Your task to perform on an android device: Open Yahoo.com Image 0: 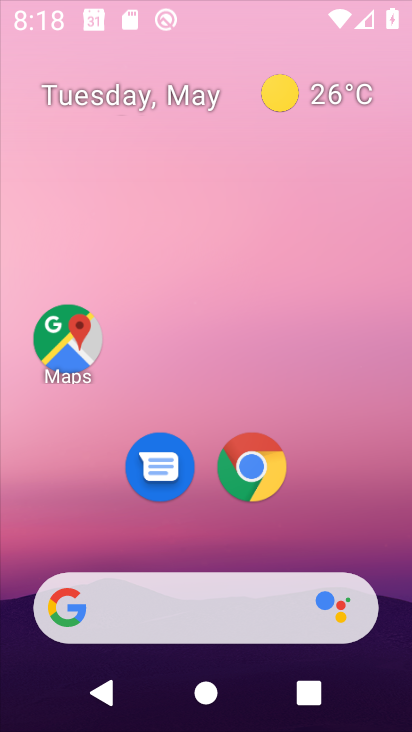
Step 0: press home button
Your task to perform on an android device: Open Yahoo.com Image 1: 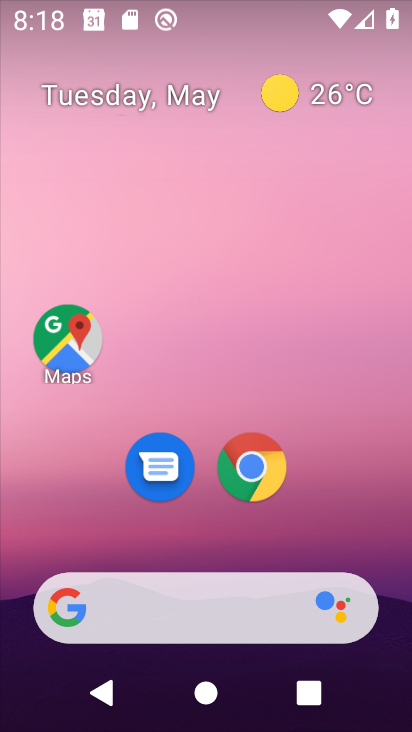
Step 1: click (252, 462)
Your task to perform on an android device: Open Yahoo.com Image 2: 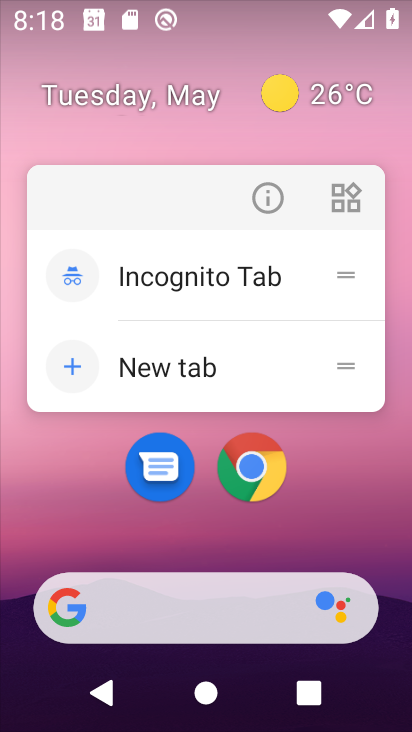
Step 2: click (253, 467)
Your task to perform on an android device: Open Yahoo.com Image 3: 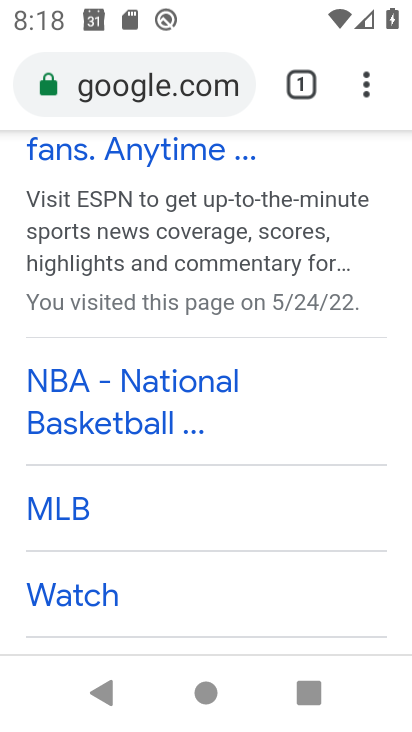
Step 3: click (238, 85)
Your task to perform on an android device: Open Yahoo.com Image 4: 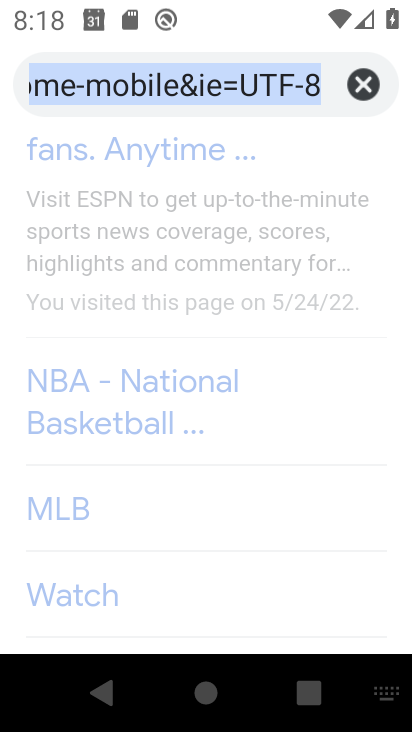
Step 4: click (376, 82)
Your task to perform on an android device: Open Yahoo.com Image 5: 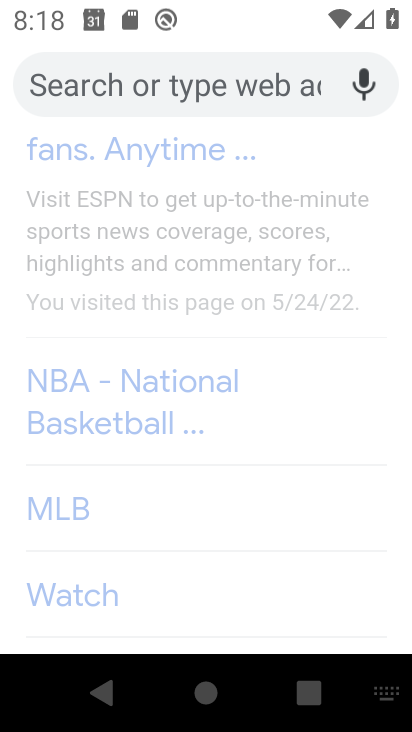
Step 5: type "Yahoo.com"
Your task to perform on an android device: Open Yahoo.com Image 6: 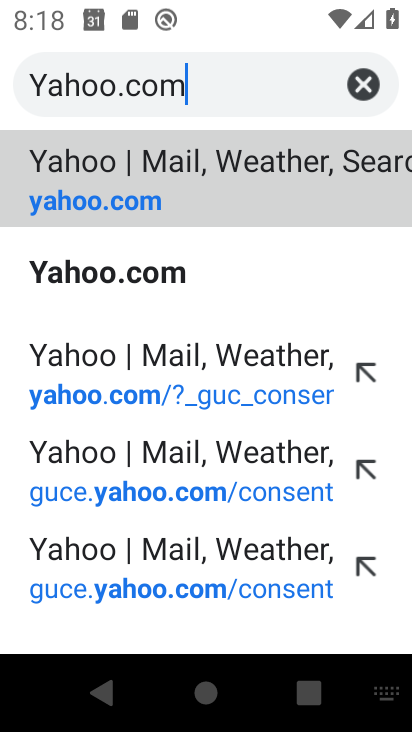
Step 6: click (80, 267)
Your task to perform on an android device: Open Yahoo.com Image 7: 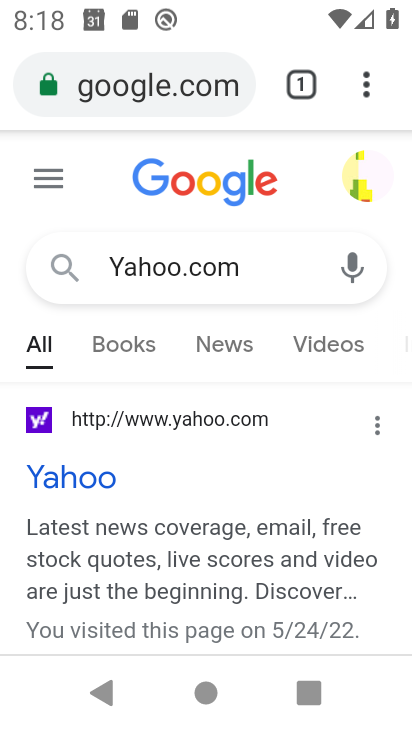
Step 7: task complete